Your task to perform on an android device: set the timer Image 0: 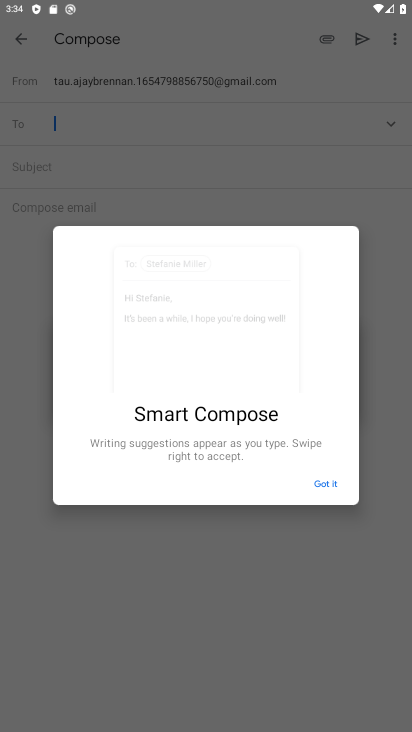
Step 0: press home button
Your task to perform on an android device: set the timer Image 1: 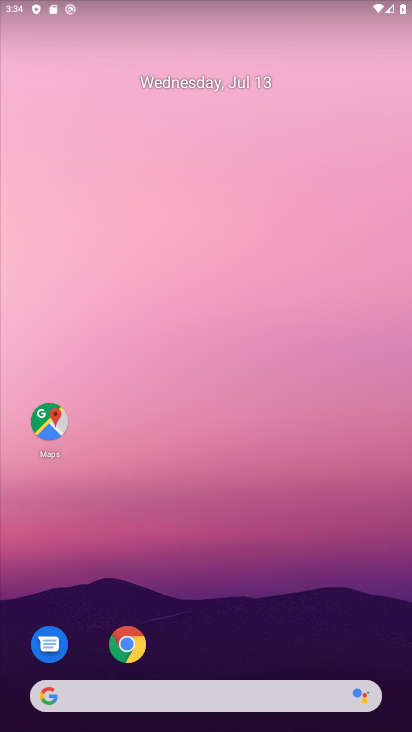
Step 1: drag from (313, 573) to (165, 48)
Your task to perform on an android device: set the timer Image 2: 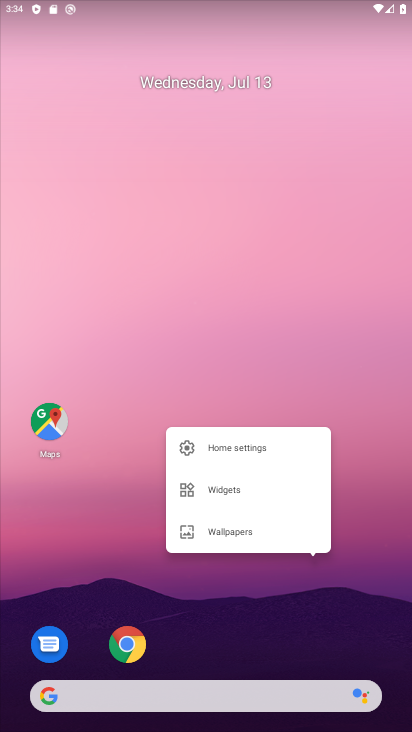
Step 2: click (401, 500)
Your task to perform on an android device: set the timer Image 3: 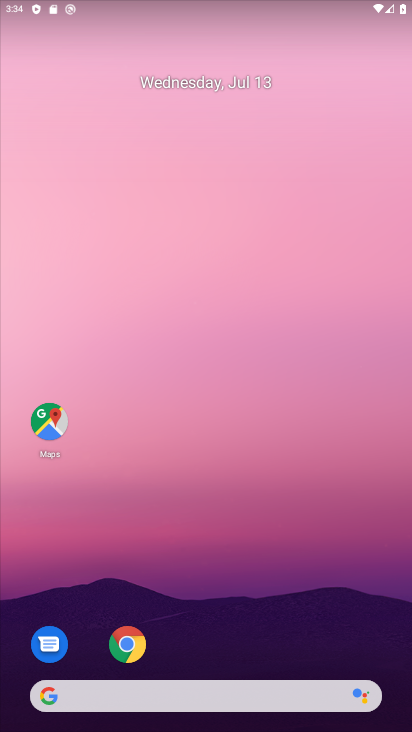
Step 3: drag from (330, 544) to (233, 54)
Your task to perform on an android device: set the timer Image 4: 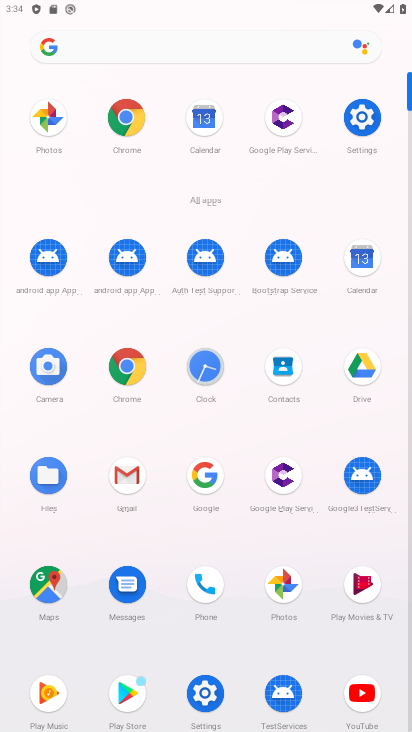
Step 4: click (206, 366)
Your task to perform on an android device: set the timer Image 5: 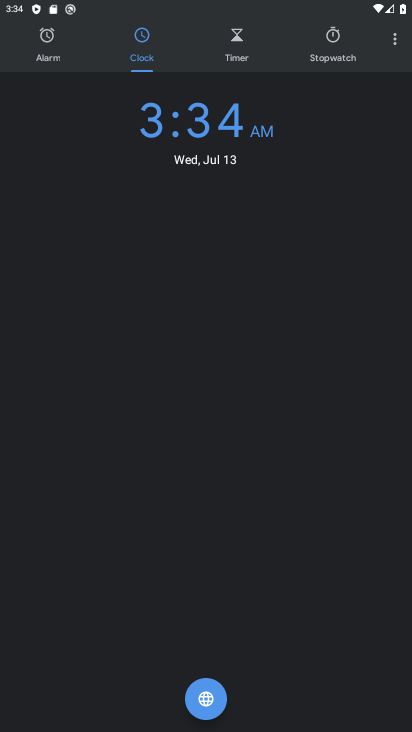
Step 5: click (236, 49)
Your task to perform on an android device: set the timer Image 6: 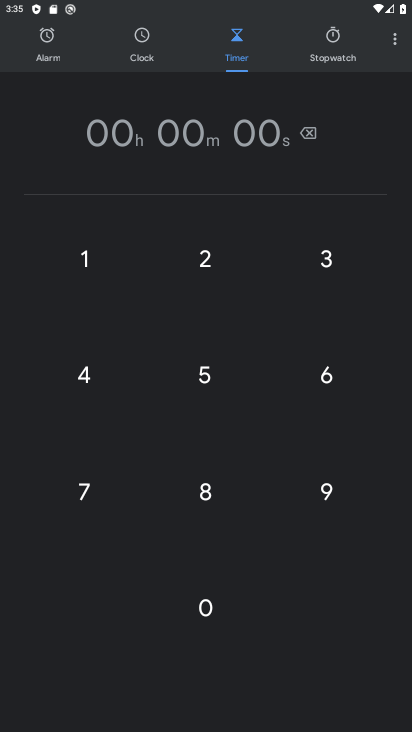
Step 6: click (322, 253)
Your task to perform on an android device: set the timer Image 7: 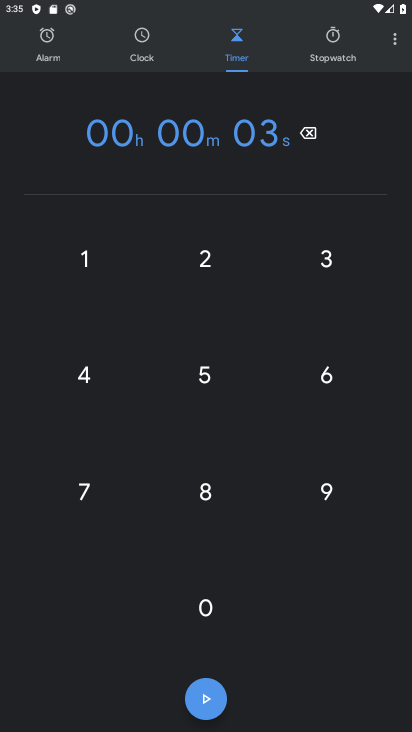
Step 7: click (203, 264)
Your task to perform on an android device: set the timer Image 8: 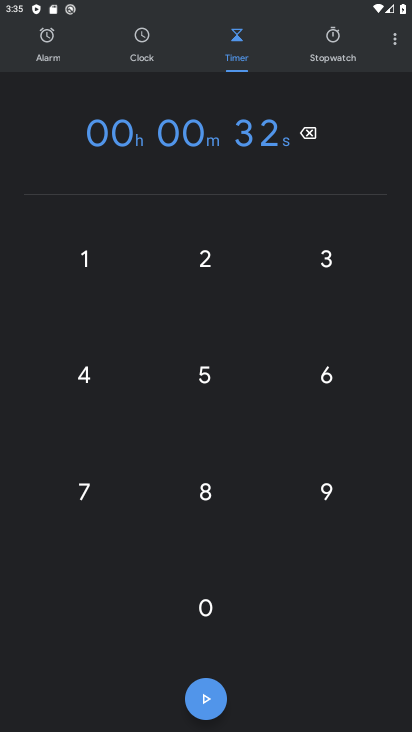
Step 8: click (219, 359)
Your task to perform on an android device: set the timer Image 9: 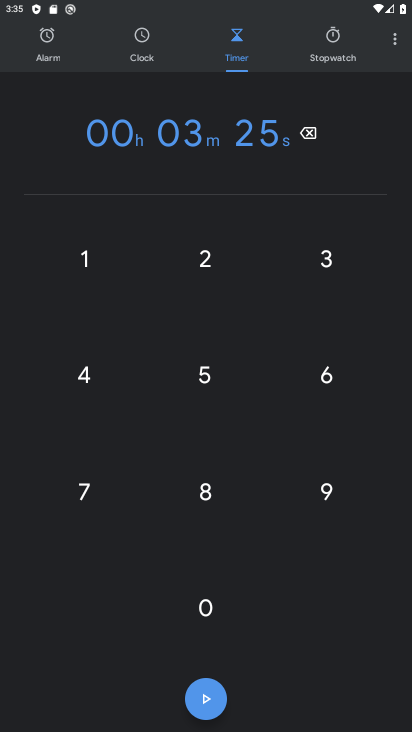
Step 9: click (208, 705)
Your task to perform on an android device: set the timer Image 10: 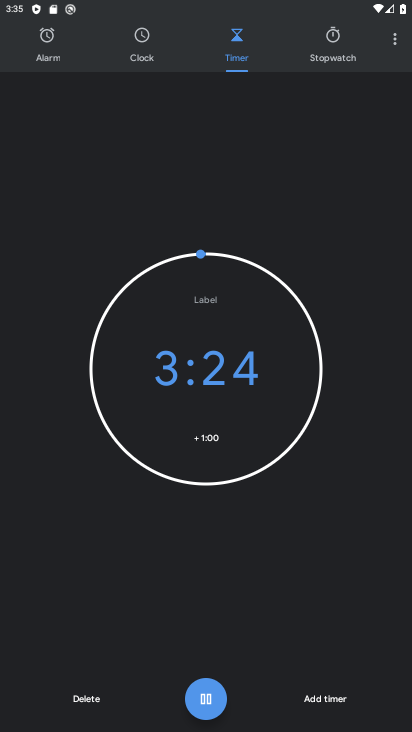
Step 10: task complete